Your task to perform on an android device: see sites visited before in the chrome app Image 0: 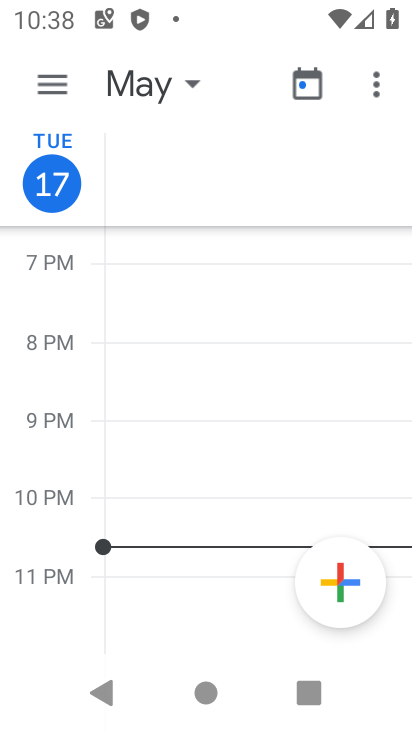
Step 0: press home button
Your task to perform on an android device: see sites visited before in the chrome app Image 1: 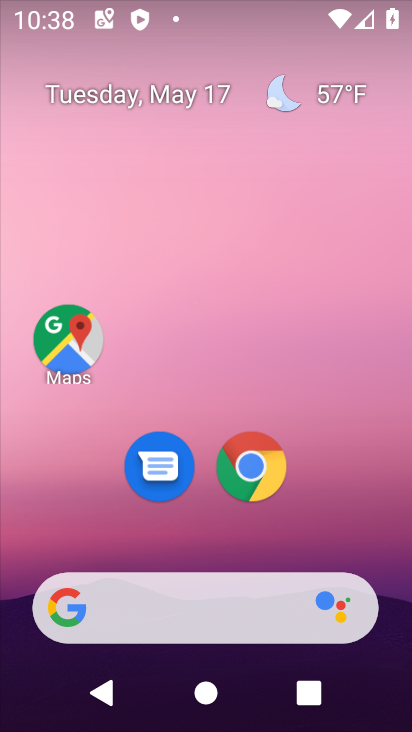
Step 1: drag from (142, 630) to (254, 149)
Your task to perform on an android device: see sites visited before in the chrome app Image 2: 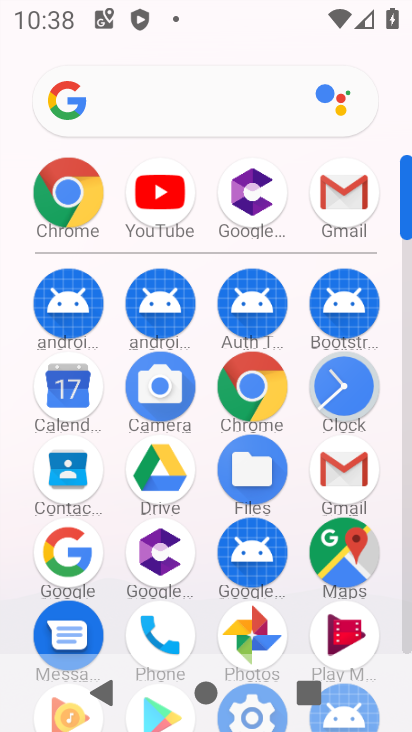
Step 2: click (65, 217)
Your task to perform on an android device: see sites visited before in the chrome app Image 3: 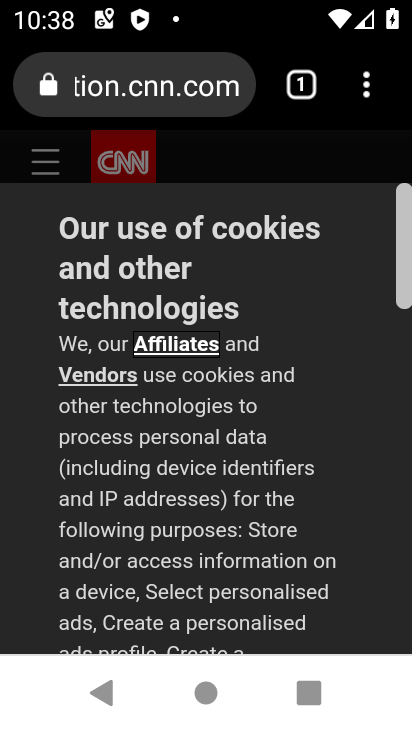
Step 3: drag from (85, 519) to (214, 181)
Your task to perform on an android device: see sites visited before in the chrome app Image 4: 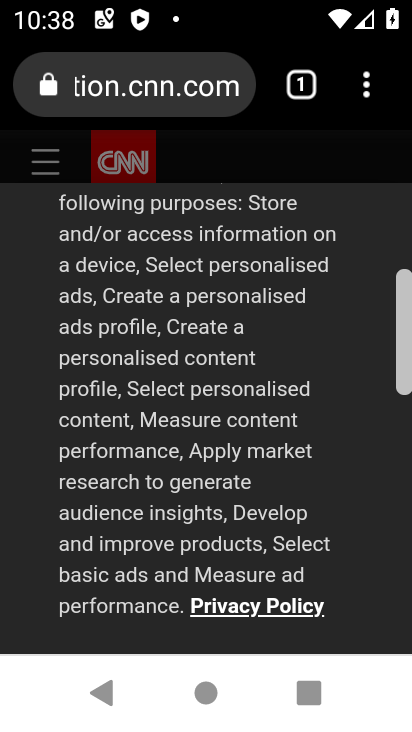
Step 4: drag from (188, 541) to (290, 201)
Your task to perform on an android device: see sites visited before in the chrome app Image 5: 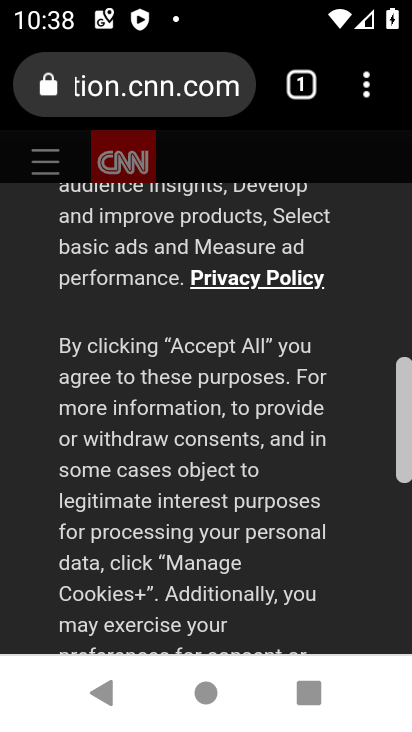
Step 5: drag from (288, 494) to (326, 235)
Your task to perform on an android device: see sites visited before in the chrome app Image 6: 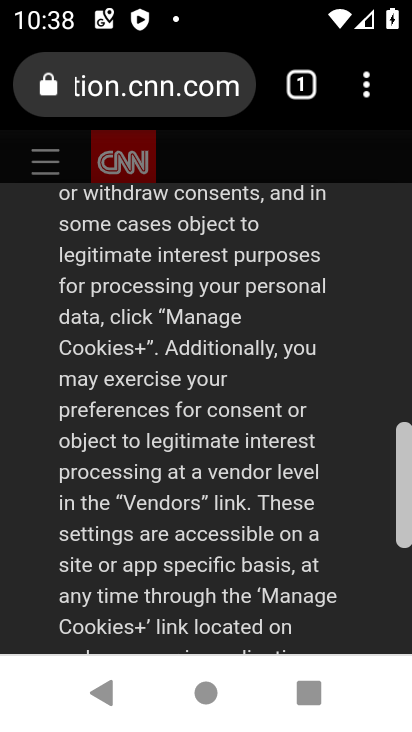
Step 6: drag from (239, 583) to (329, 234)
Your task to perform on an android device: see sites visited before in the chrome app Image 7: 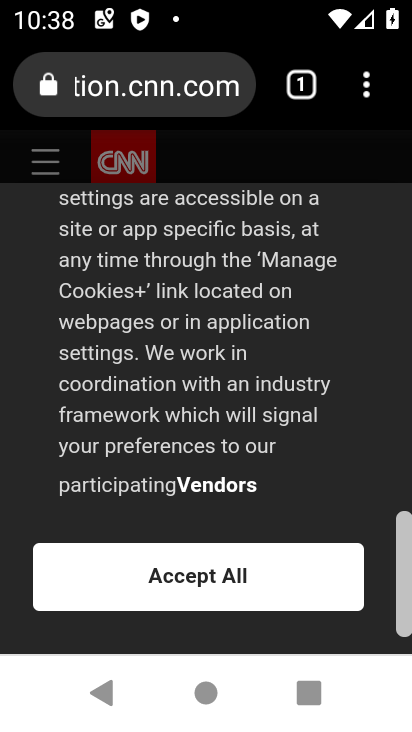
Step 7: click (183, 593)
Your task to perform on an android device: see sites visited before in the chrome app Image 8: 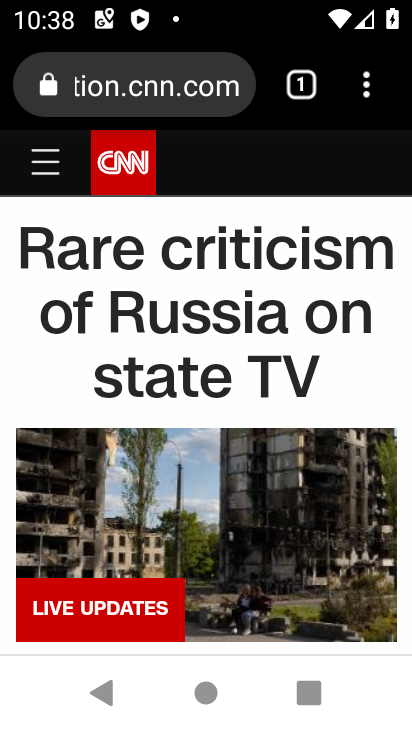
Step 8: click (191, 577)
Your task to perform on an android device: see sites visited before in the chrome app Image 9: 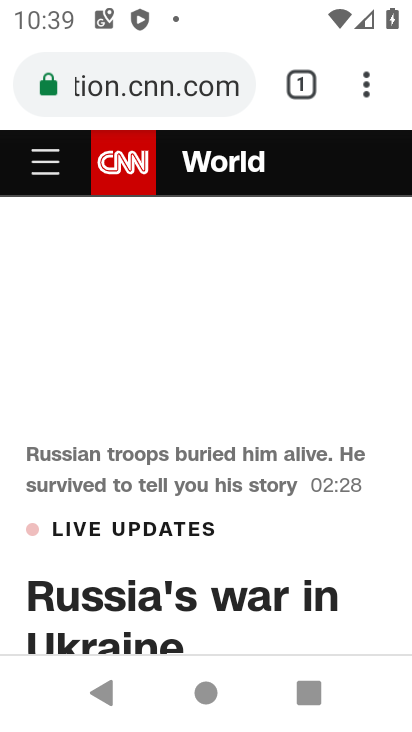
Step 9: click (367, 94)
Your task to perform on an android device: see sites visited before in the chrome app Image 10: 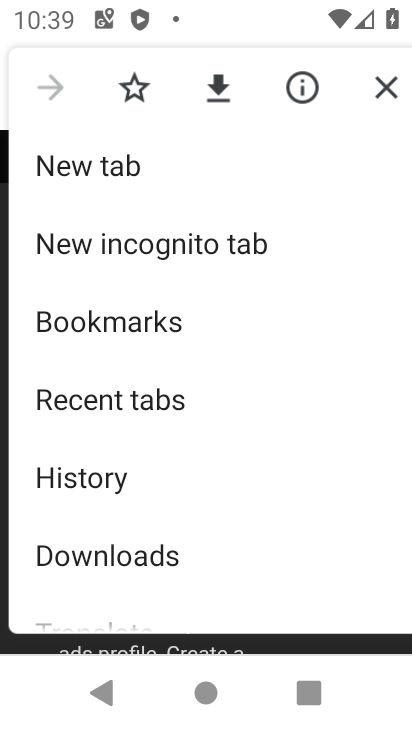
Step 10: drag from (155, 490) to (195, 266)
Your task to perform on an android device: see sites visited before in the chrome app Image 11: 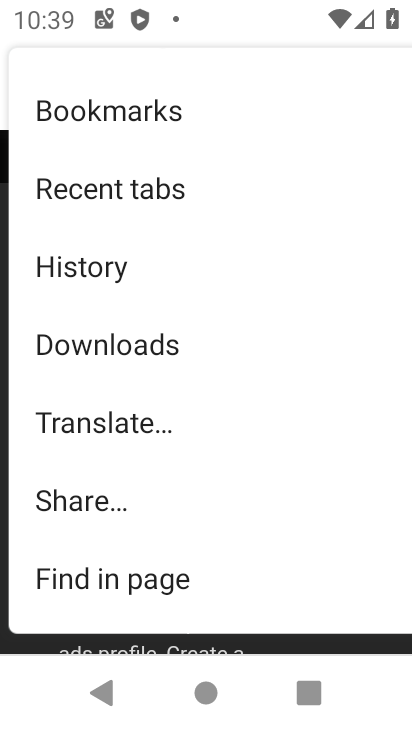
Step 11: drag from (133, 487) to (181, 231)
Your task to perform on an android device: see sites visited before in the chrome app Image 12: 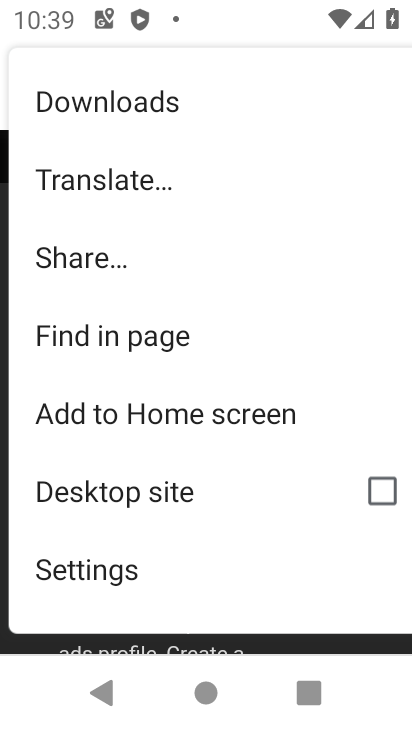
Step 12: click (92, 571)
Your task to perform on an android device: see sites visited before in the chrome app Image 13: 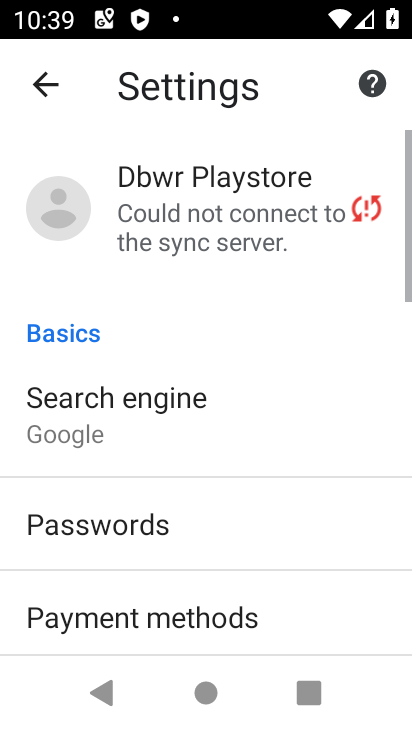
Step 13: drag from (142, 564) to (236, 207)
Your task to perform on an android device: see sites visited before in the chrome app Image 14: 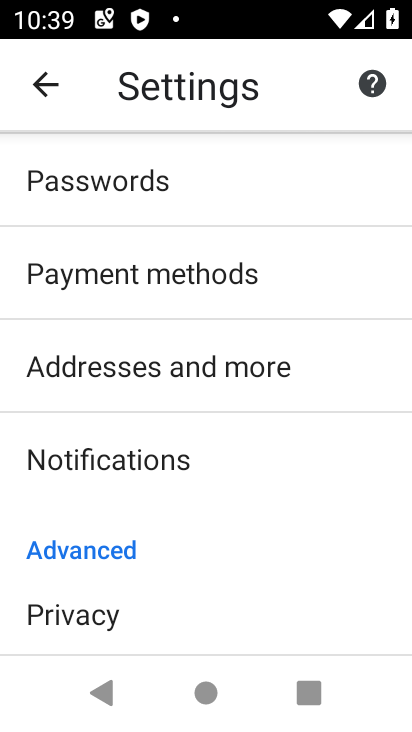
Step 14: drag from (166, 537) to (208, 387)
Your task to perform on an android device: see sites visited before in the chrome app Image 15: 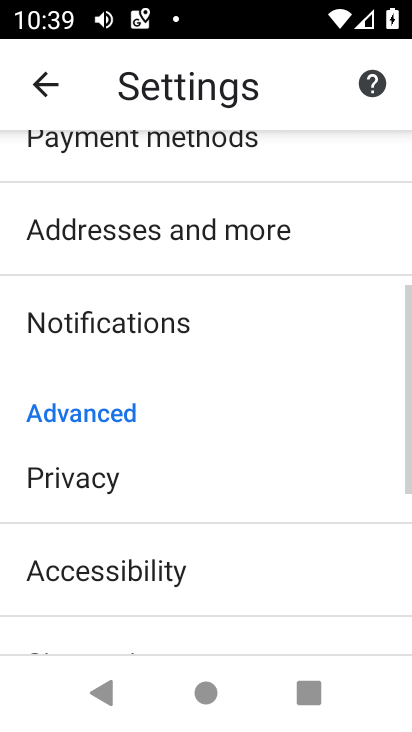
Step 15: drag from (153, 569) to (223, 358)
Your task to perform on an android device: see sites visited before in the chrome app Image 16: 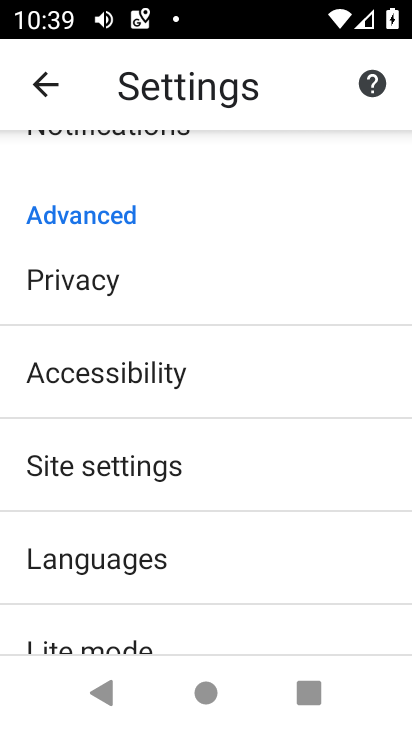
Step 16: drag from (101, 607) to (157, 507)
Your task to perform on an android device: see sites visited before in the chrome app Image 17: 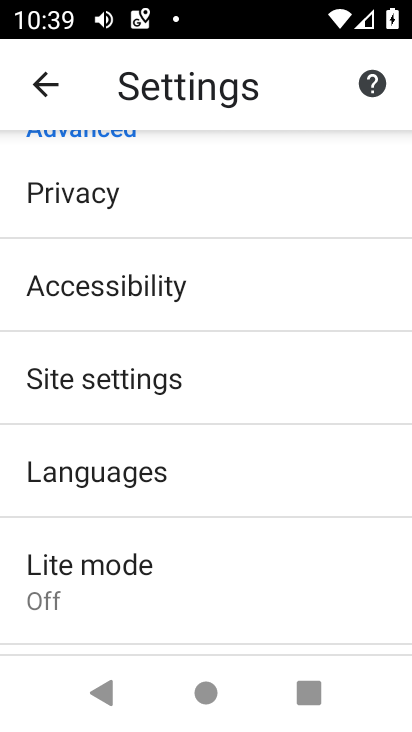
Step 17: click (137, 382)
Your task to perform on an android device: see sites visited before in the chrome app Image 18: 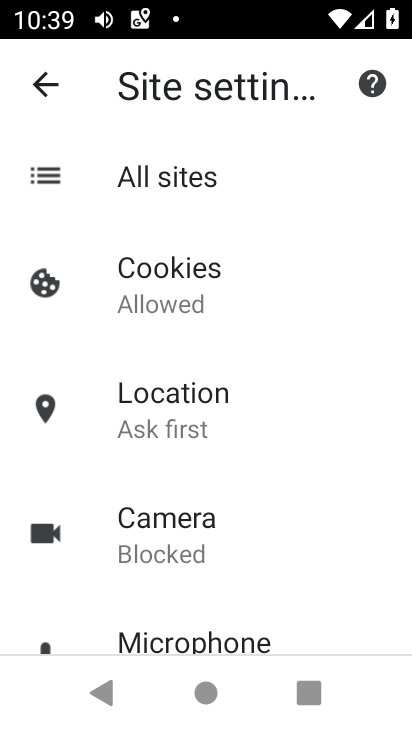
Step 18: task complete